Your task to perform on an android device: Open Google Chrome Image 0: 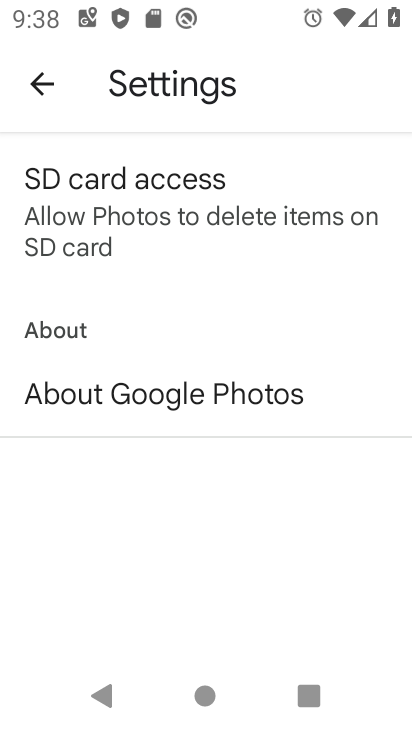
Step 0: press home button
Your task to perform on an android device: Open Google Chrome Image 1: 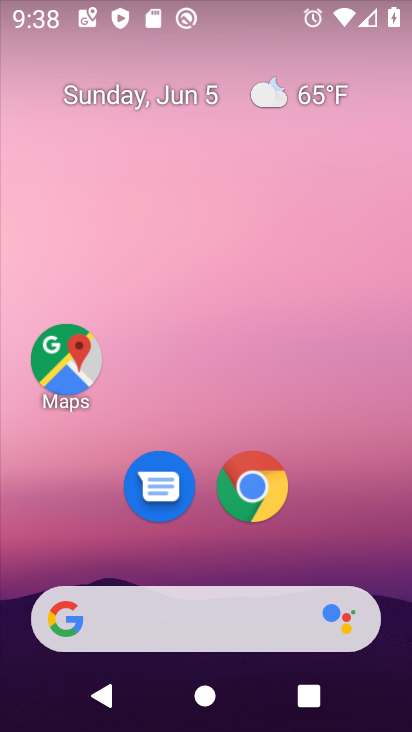
Step 1: drag from (329, 548) to (333, 153)
Your task to perform on an android device: Open Google Chrome Image 2: 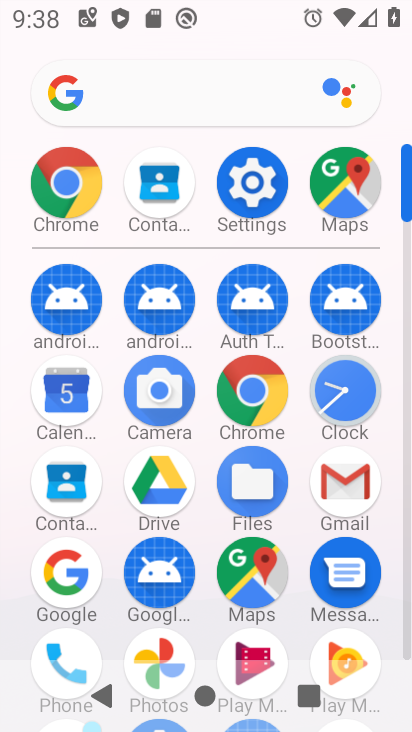
Step 2: click (62, 209)
Your task to perform on an android device: Open Google Chrome Image 3: 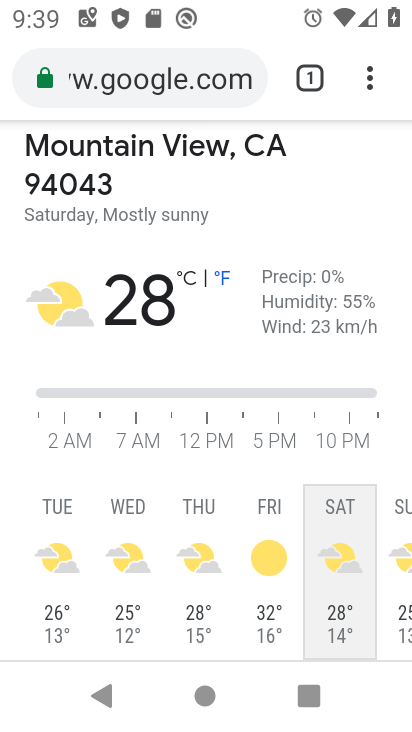
Step 3: click (320, 88)
Your task to perform on an android device: Open Google Chrome Image 4: 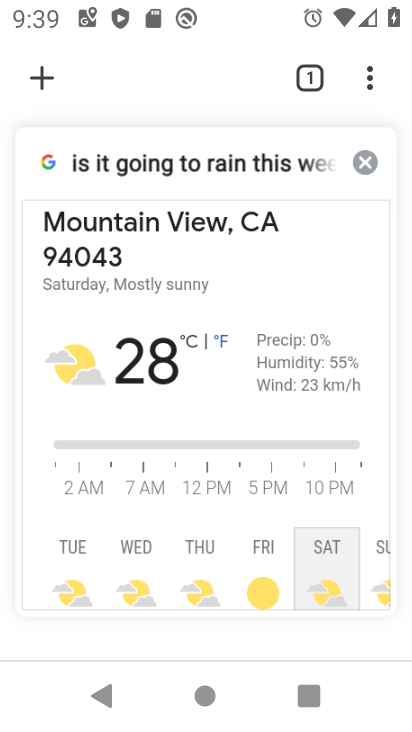
Step 4: click (33, 89)
Your task to perform on an android device: Open Google Chrome Image 5: 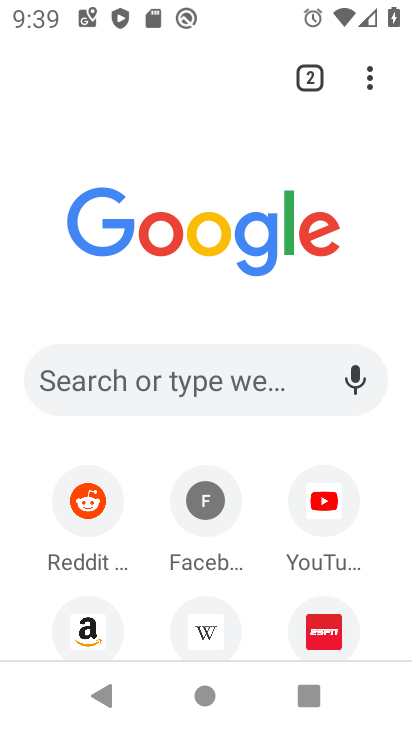
Step 5: task complete